Your task to perform on an android device: Go to ESPN.com Image 0: 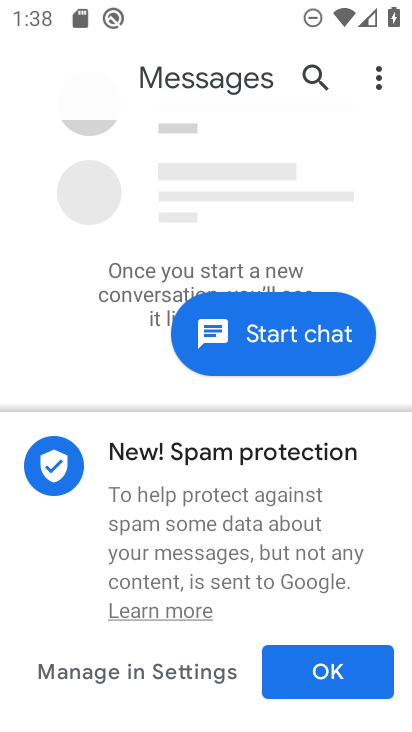
Step 0: press home button
Your task to perform on an android device: Go to ESPN.com Image 1: 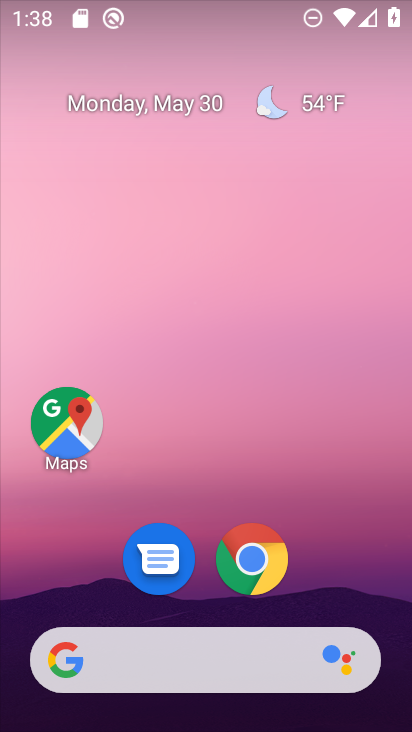
Step 1: click (270, 562)
Your task to perform on an android device: Go to ESPN.com Image 2: 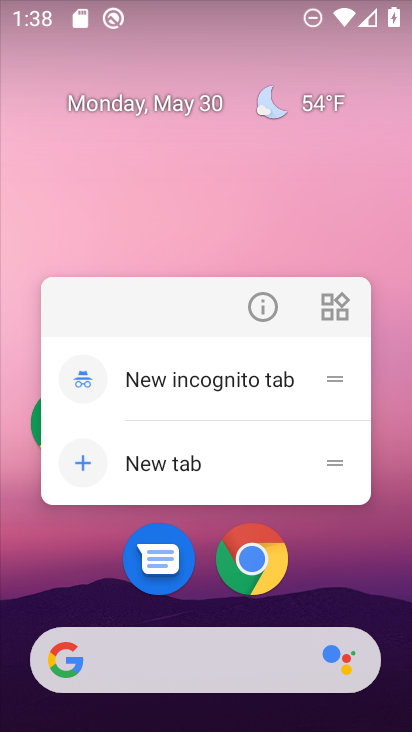
Step 2: click (270, 562)
Your task to perform on an android device: Go to ESPN.com Image 3: 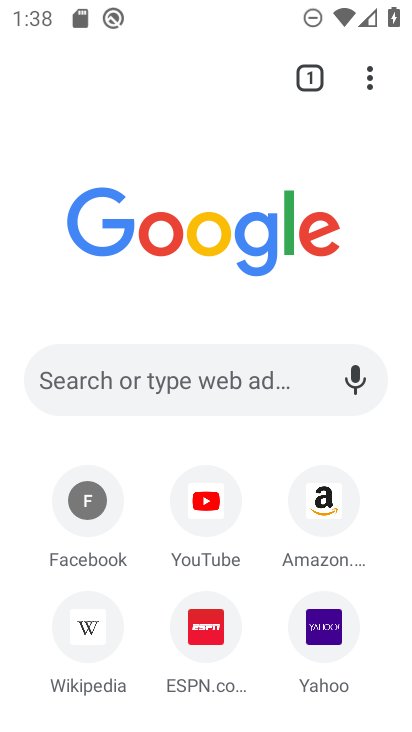
Step 3: click (208, 625)
Your task to perform on an android device: Go to ESPN.com Image 4: 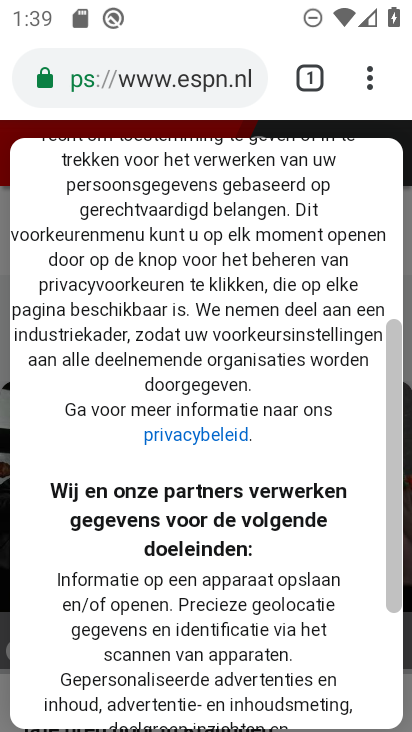
Step 4: task complete